Your task to perform on an android device: toggle javascript in the chrome app Image 0: 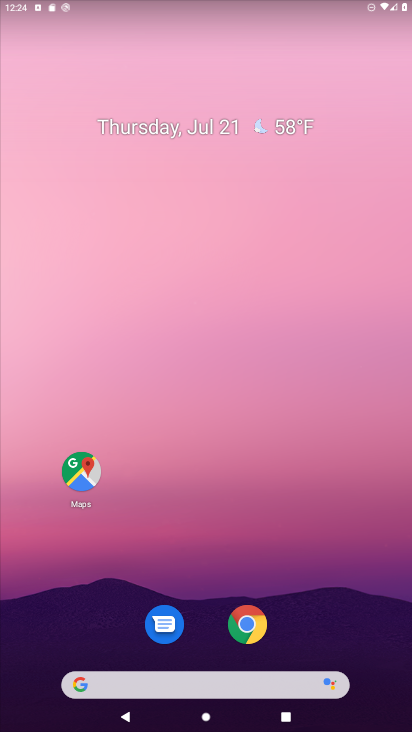
Step 0: click (247, 607)
Your task to perform on an android device: toggle javascript in the chrome app Image 1: 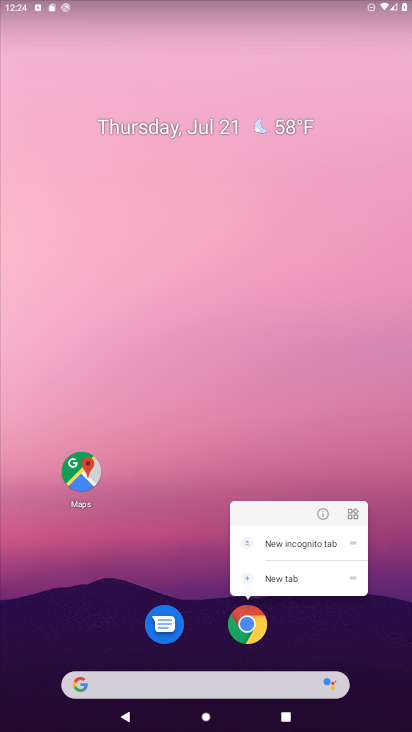
Step 1: click (255, 623)
Your task to perform on an android device: toggle javascript in the chrome app Image 2: 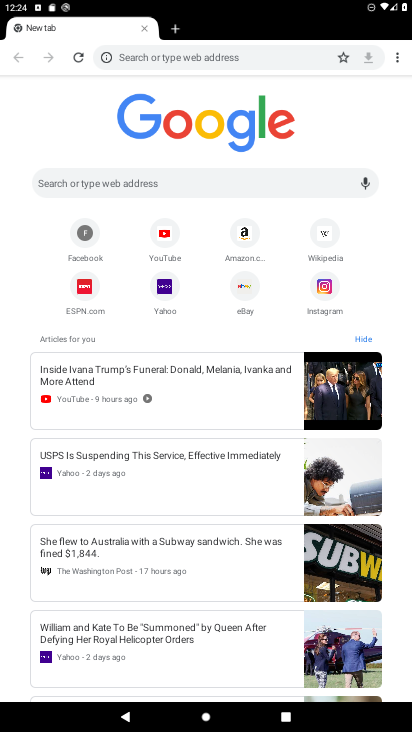
Step 2: click (389, 53)
Your task to perform on an android device: toggle javascript in the chrome app Image 3: 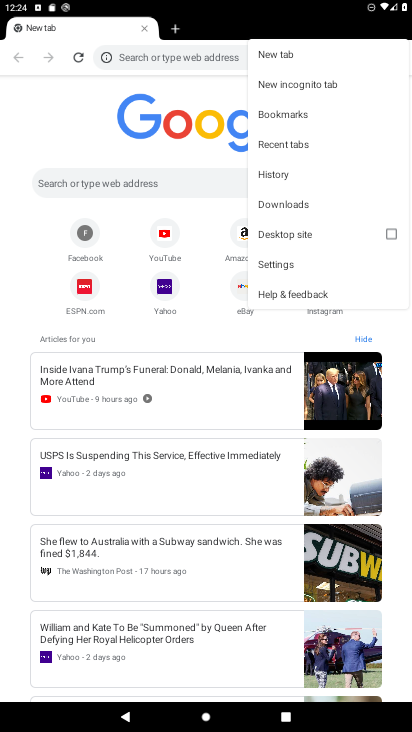
Step 3: click (282, 263)
Your task to perform on an android device: toggle javascript in the chrome app Image 4: 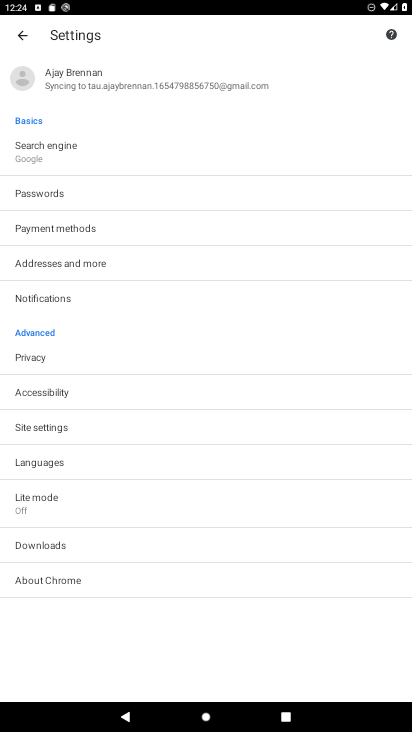
Step 4: click (93, 433)
Your task to perform on an android device: toggle javascript in the chrome app Image 5: 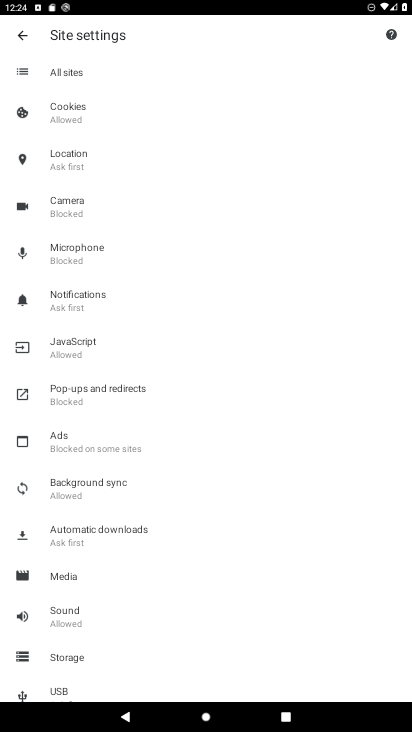
Step 5: click (111, 342)
Your task to perform on an android device: toggle javascript in the chrome app Image 6: 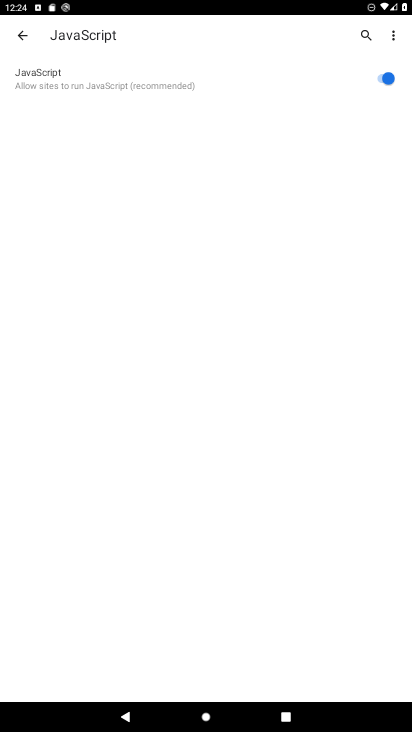
Step 6: click (375, 80)
Your task to perform on an android device: toggle javascript in the chrome app Image 7: 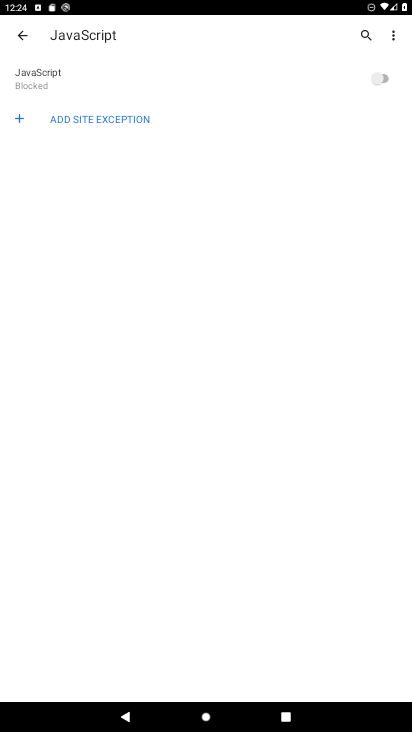
Step 7: task complete